Your task to perform on an android device: make emails show in primary in the gmail app Image 0: 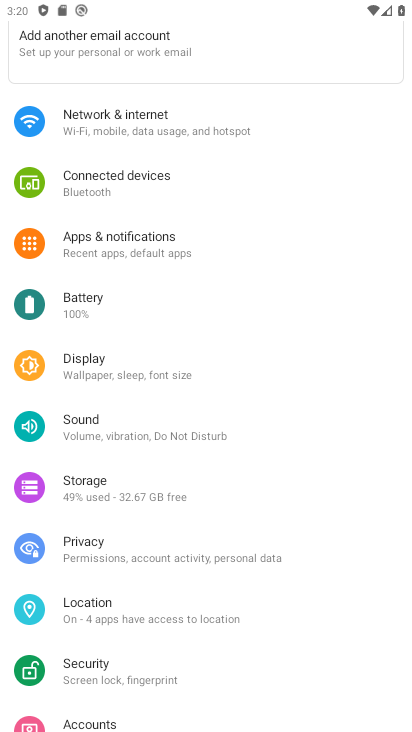
Step 0: press home button
Your task to perform on an android device: make emails show in primary in the gmail app Image 1: 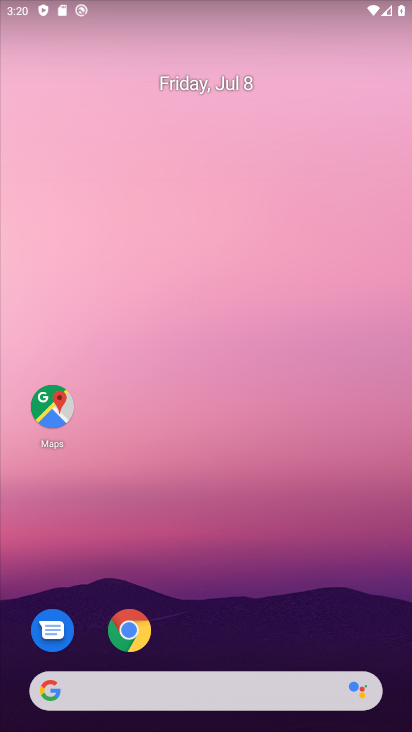
Step 1: drag from (236, 652) to (208, 181)
Your task to perform on an android device: make emails show in primary in the gmail app Image 2: 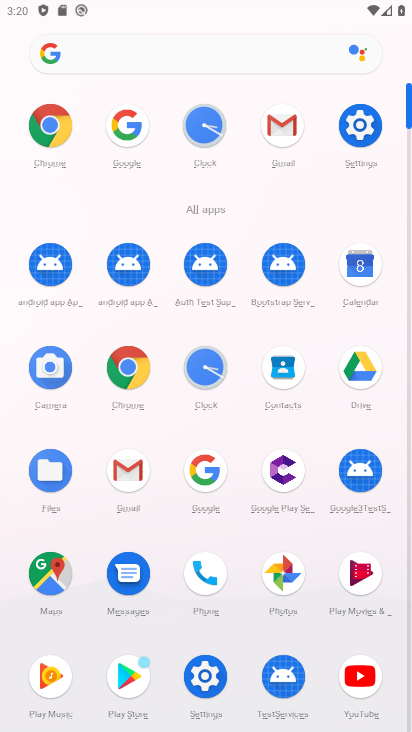
Step 2: click (286, 122)
Your task to perform on an android device: make emails show in primary in the gmail app Image 3: 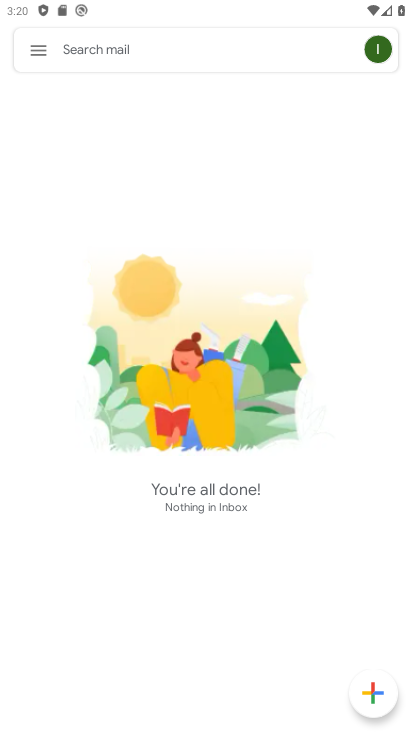
Step 3: click (44, 50)
Your task to perform on an android device: make emails show in primary in the gmail app Image 4: 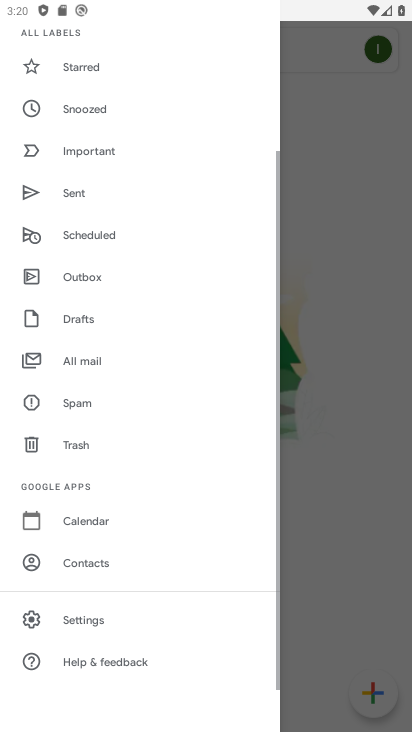
Step 4: drag from (68, 76) to (85, 291)
Your task to perform on an android device: make emails show in primary in the gmail app Image 5: 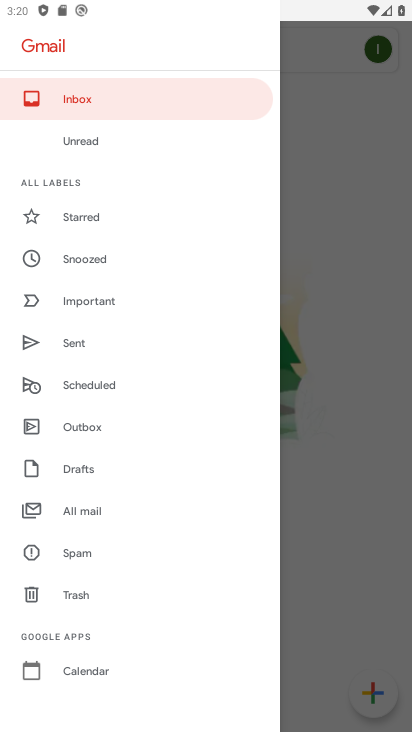
Step 5: drag from (83, 603) to (155, 403)
Your task to perform on an android device: make emails show in primary in the gmail app Image 6: 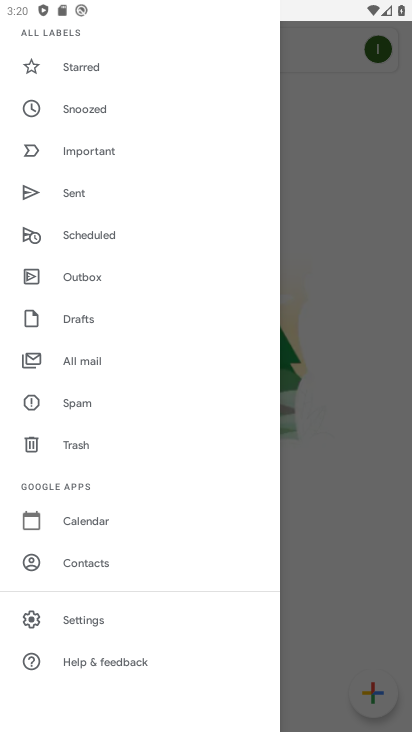
Step 6: click (78, 624)
Your task to perform on an android device: make emails show in primary in the gmail app Image 7: 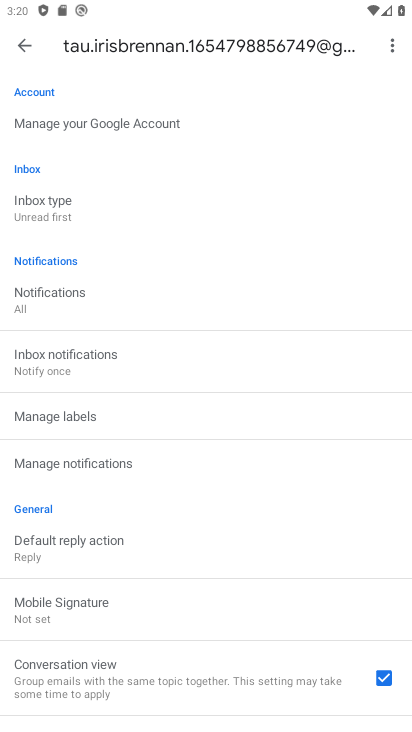
Step 7: drag from (121, 569) to (192, 463)
Your task to perform on an android device: make emails show in primary in the gmail app Image 8: 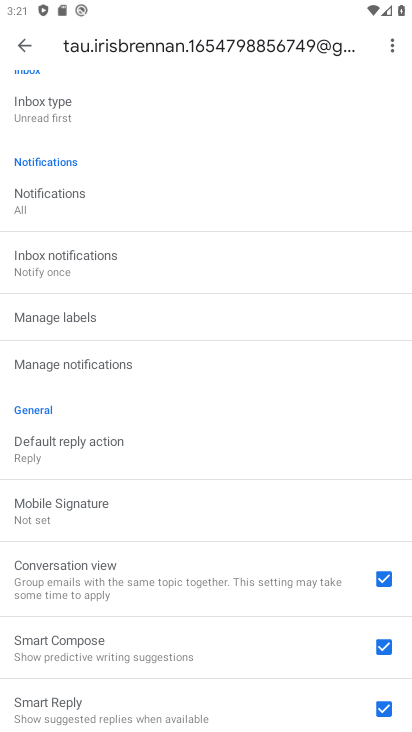
Step 8: click (65, 125)
Your task to perform on an android device: make emails show in primary in the gmail app Image 9: 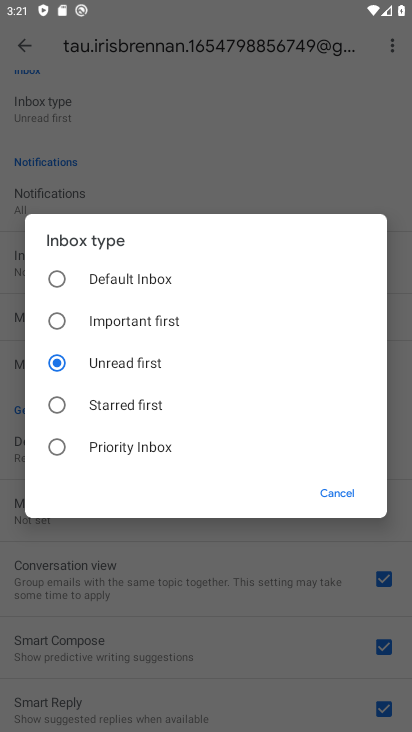
Step 9: click (54, 272)
Your task to perform on an android device: make emails show in primary in the gmail app Image 10: 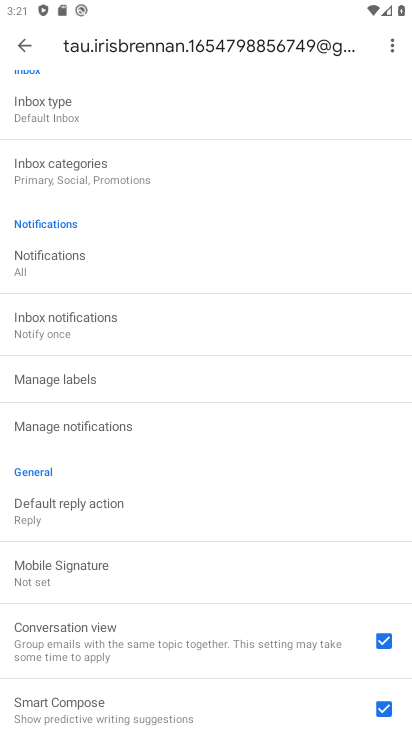
Step 10: click (61, 167)
Your task to perform on an android device: make emails show in primary in the gmail app Image 11: 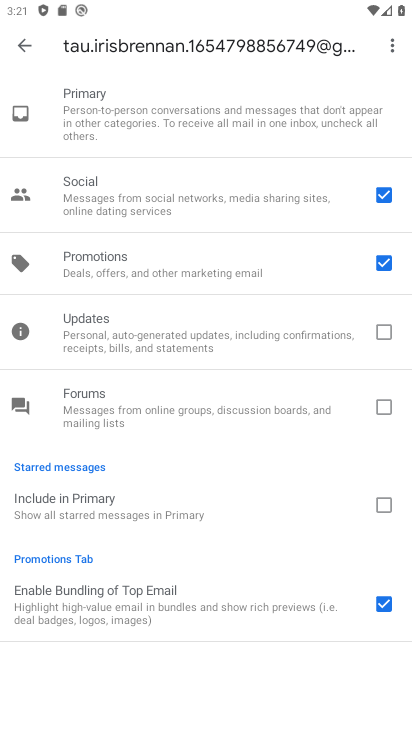
Step 11: click (381, 197)
Your task to perform on an android device: make emails show in primary in the gmail app Image 12: 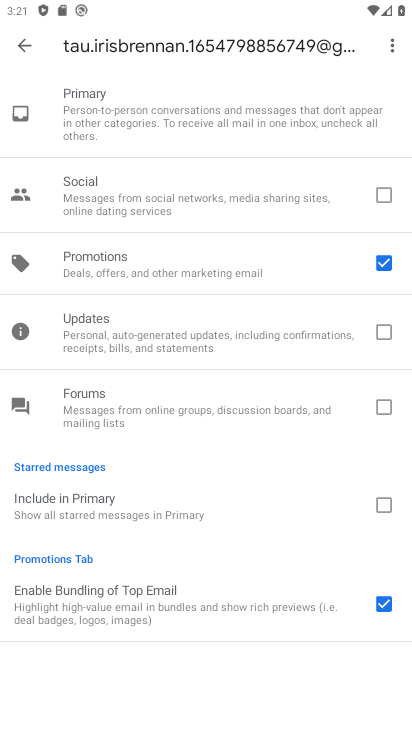
Step 12: click (391, 261)
Your task to perform on an android device: make emails show in primary in the gmail app Image 13: 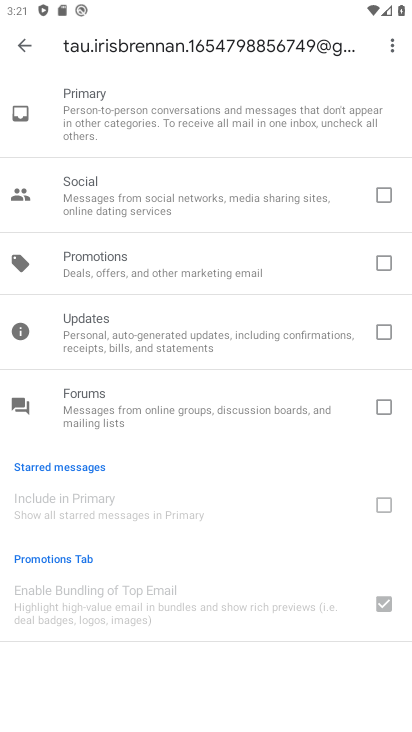
Step 13: task complete